Your task to perform on an android device: empty trash in the gmail app Image 0: 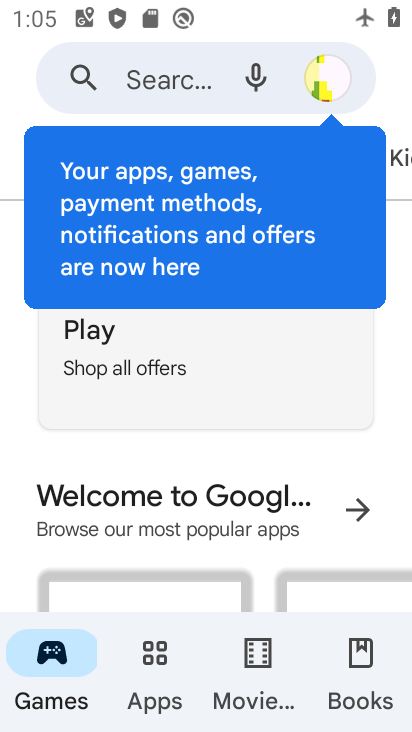
Step 0: press home button
Your task to perform on an android device: empty trash in the gmail app Image 1: 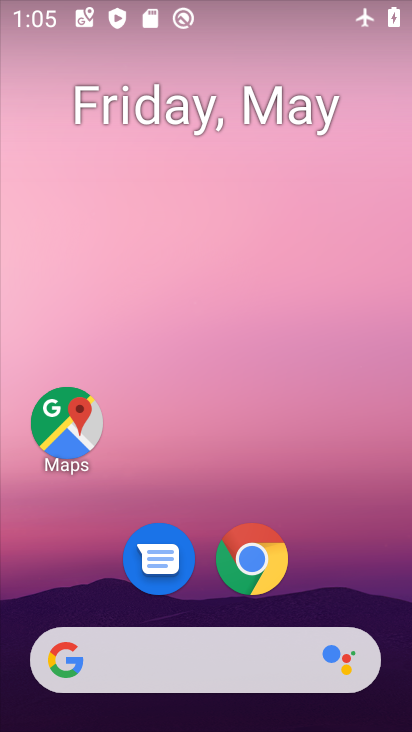
Step 1: drag from (348, 538) to (231, 139)
Your task to perform on an android device: empty trash in the gmail app Image 2: 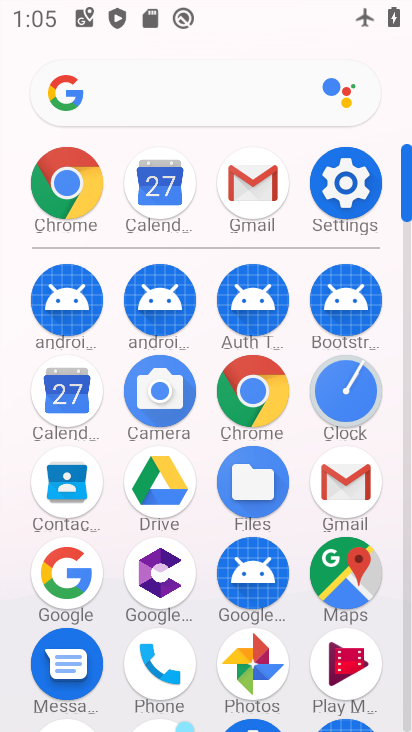
Step 2: click (233, 194)
Your task to perform on an android device: empty trash in the gmail app Image 3: 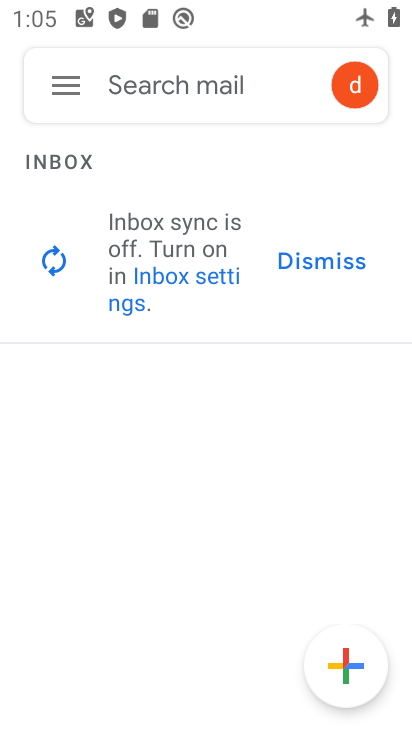
Step 3: click (56, 73)
Your task to perform on an android device: empty trash in the gmail app Image 4: 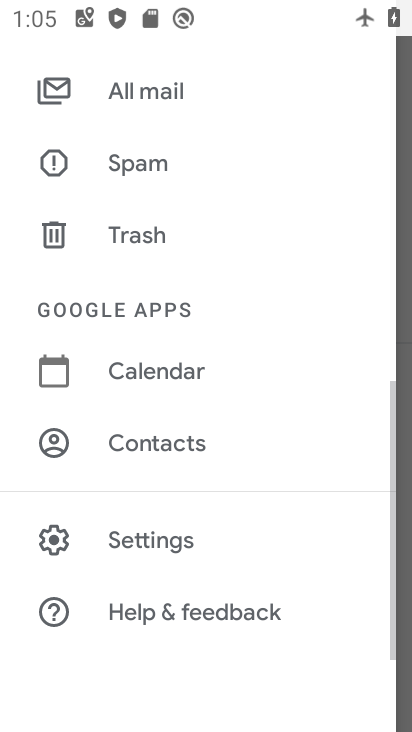
Step 4: click (155, 229)
Your task to perform on an android device: empty trash in the gmail app Image 5: 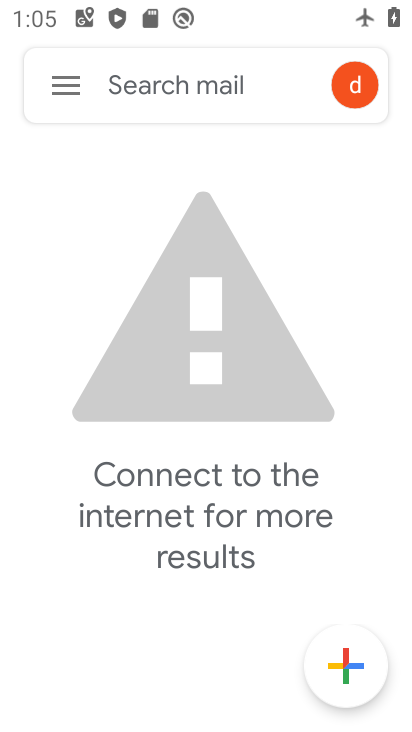
Step 5: task complete